Your task to perform on an android device: Clear the shopping cart on walmart. Add "asus rog" to the cart on walmart, then select checkout. Image 0: 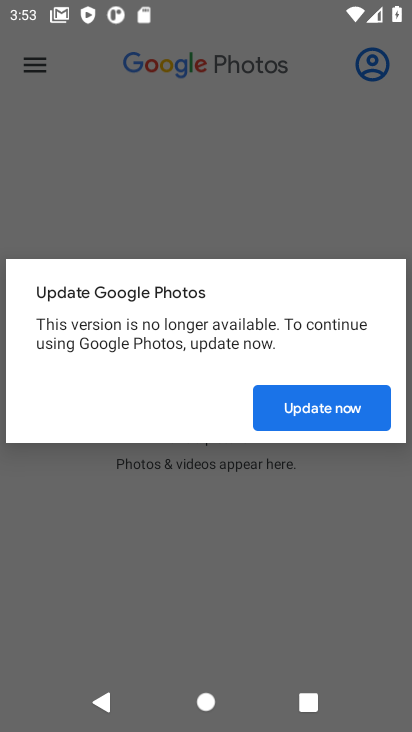
Step 0: press home button
Your task to perform on an android device: Clear the shopping cart on walmart. Add "asus rog" to the cart on walmart, then select checkout. Image 1: 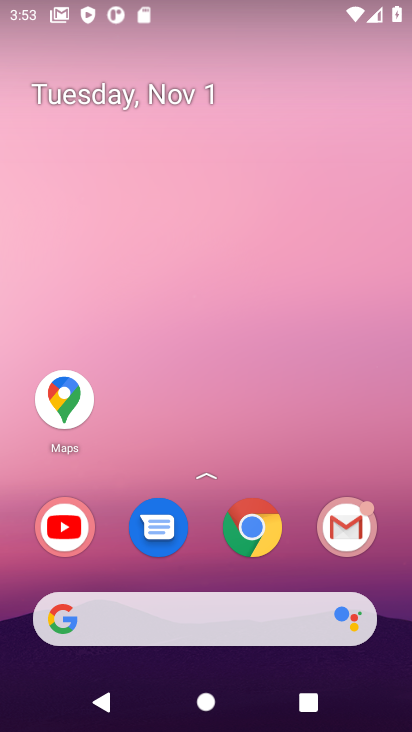
Step 1: click (145, 626)
Your task to perform on an android device: Clear the shopping cart on walmart. Add "asus rog" to the cart on walmart, then select checkout. Image 2: 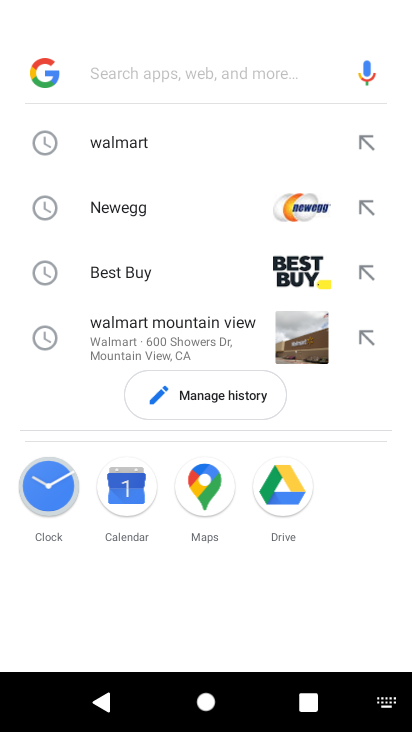
Step 2: click (131, 139)
Your task to perform on an android device: Clear the shopping cart on walmart. Add "asus rog" to the cart on walmart, then select checkout. Image 3: 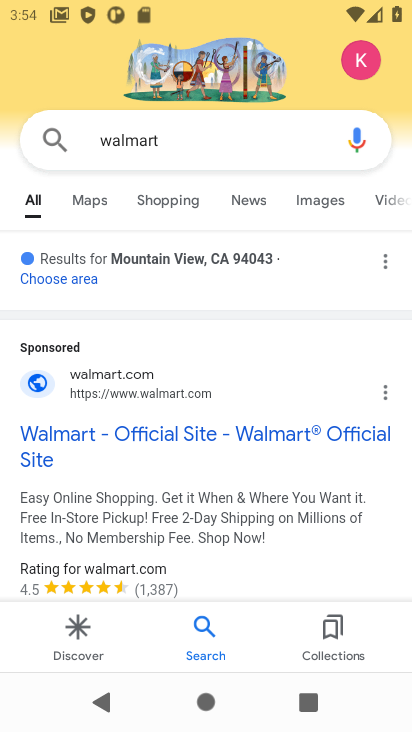
Step 3: click (95, 388)
Your task to perform on an android device: Clear the shopping cart on walmart. Add "asus rog" to the cart on walmart, then select checkout. Image 4: 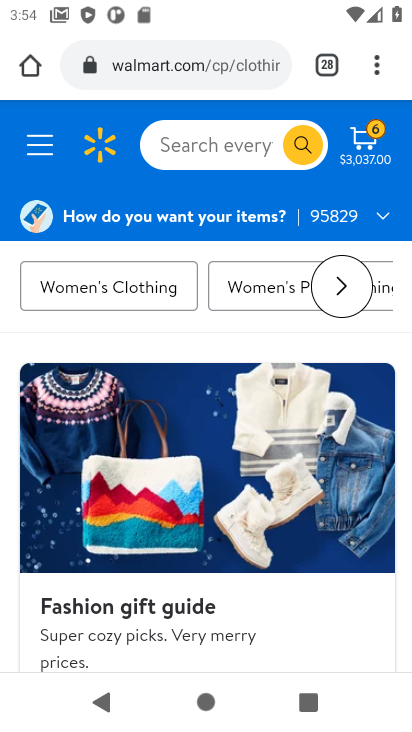
Step 4: click (366, 136)
Your task to perform on an android device: Clear the shopping cart on walmart. Add "asus rog" to the cart on walmart, then select checkout. Image 5: 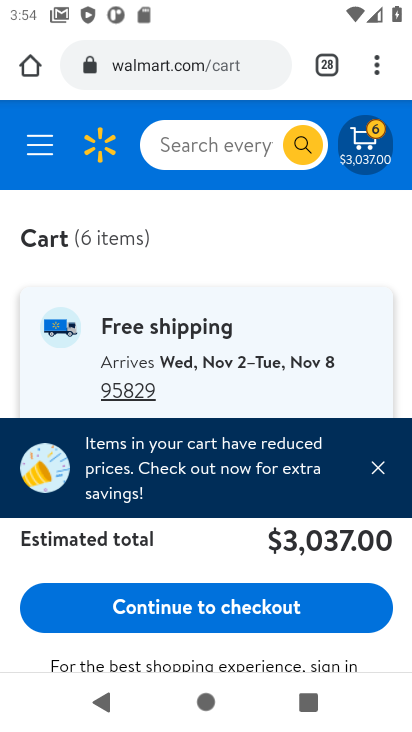
Step 5: click (384, 472)
Your task to perform on an android device: Clear the shopping cart on walmart. Add "asus rog" to the cart on walmart, then select checkout. Image 6: 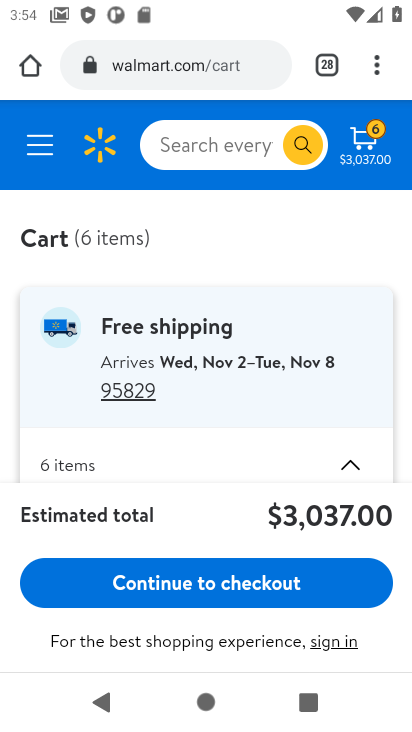
Step 6: drag from (325, 450) to (404, 214)
Your task to perform on an android device: Clear the shopping cart on walmart. Add "asus rog" to the cart on walmart, then select checkout. Image 7: 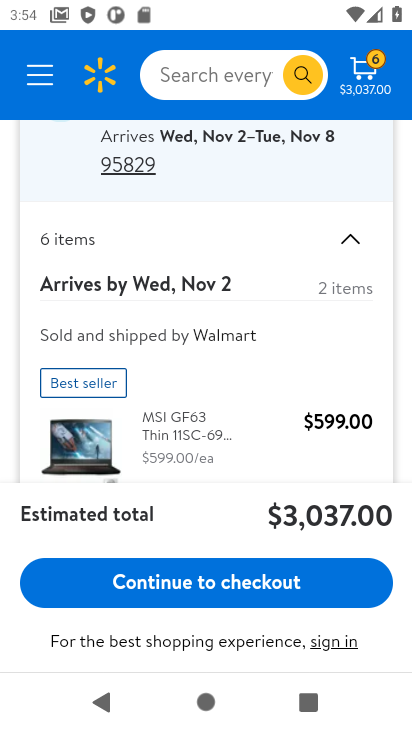
Step 7: drag from (272, 380) to (284, 277)
Your task to perform on an android device: Clear the shopping cart on walmart. Add "asus rog" to the cart on walmart, then select checkout. Image 8: 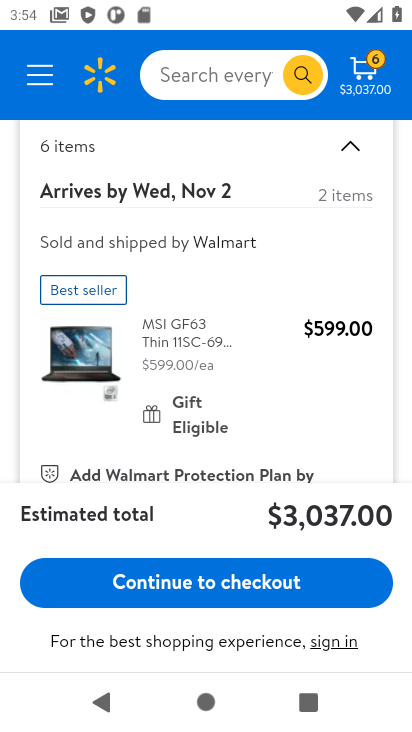
Step 8: drag from (255, 395) to (285, 256)
Your task to perform on an android device: Clear the shopping cart on walmart. Add "asus rog" to the cart on walmart, then select checkout. Image 9: 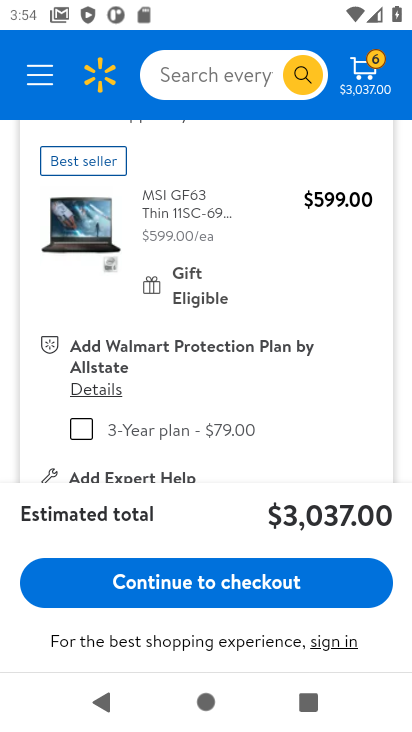
Step 9: drag from (265, 406) to (347, 174)
Your task to perform on an android device: Clear the shopping cart on walmart. Add "asus rog" to the cart on walmart, then select checkout. Image 10: 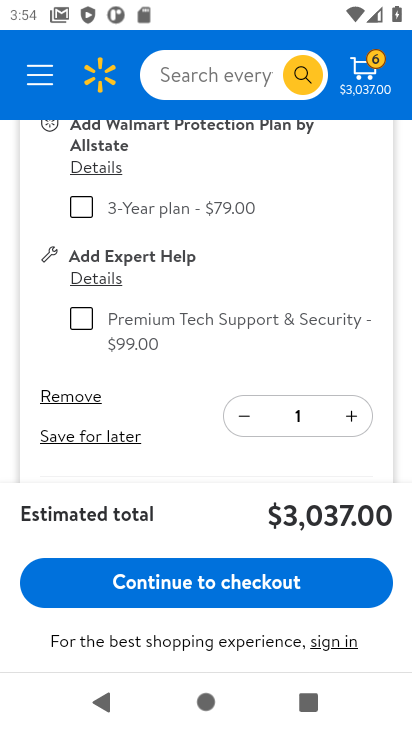
Step 10: click (87, 392)
Your task to perform on an android device: Clear the shopping cart on walmart. Add "asus rog" to the cart on walmart, then select checkout. Image 11: 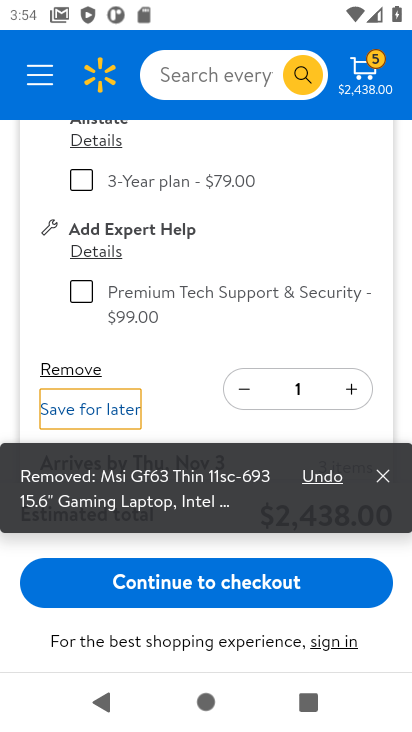
Step 11: click (85, 368)
Your task to perform on an android device: Clear the shopping cart on walmart. Add "asus rog" to the cart on walmart, then select checkout. Image 12: 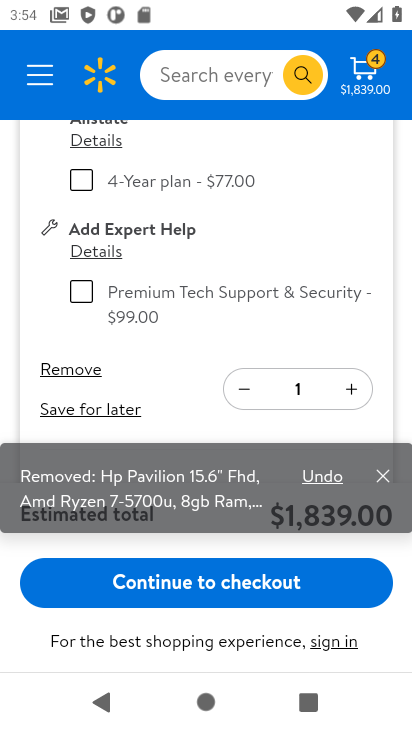
Step 12: click (82, 369)
Your task to perform on an android device: Clear the shopping cart on walmart. Add "asus rog" to the cart on walmart, then select checkout. Image 13: 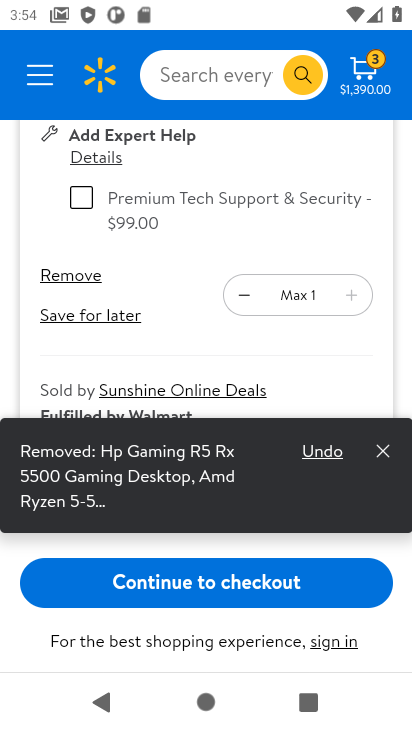
Step 13: click (60, 275)
Your task to perform on an android device: Clear the shopping cart on walmart. Add "asus rog" to the cart on walmart, then select checkout. Image 14: 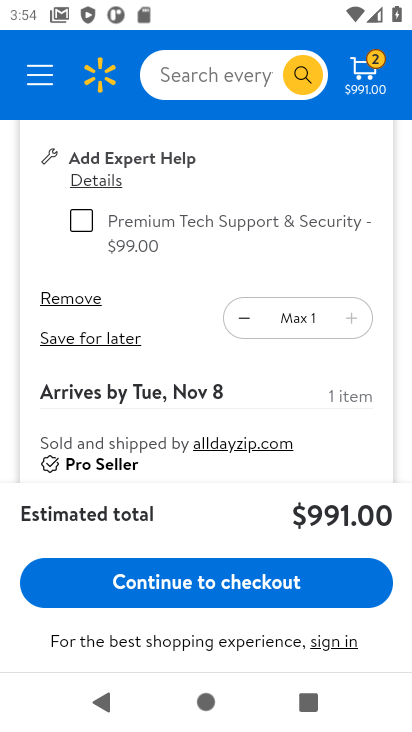
Step 14: click (60, 298)
Your task to perform on an android device: Clear the shopping cart on walmart. Add "asus rog" to the cart on walmart, then select checkout. Image 15: 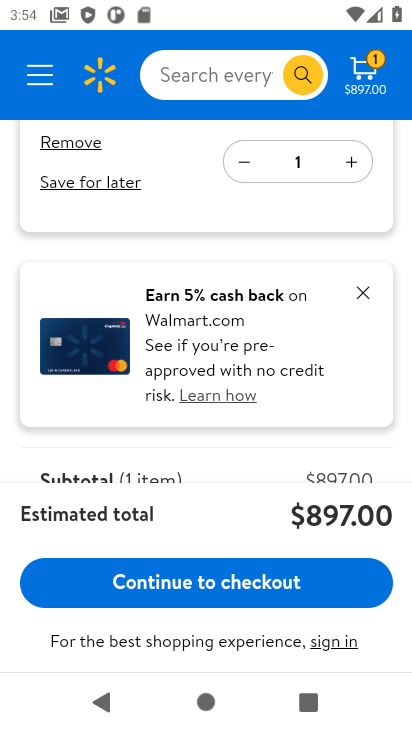
Step 15: click (365, 295)
Your task to perform on an android device: Clear the shopping cart on walmart. Add "asus rog" to the cart on walmart, then select checkout. Image 16: 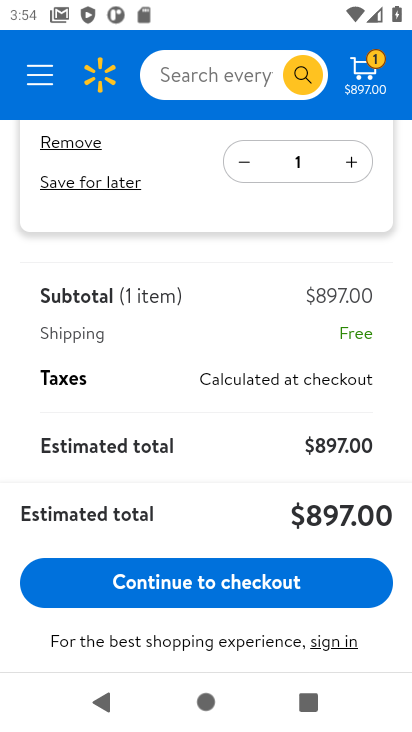
Step 16: click (62, 152)
Your task to perform on an android device: Clear the shopping cart on walmart. Add "asus rog" to the cart on walmart, then select checkout. Image 17: 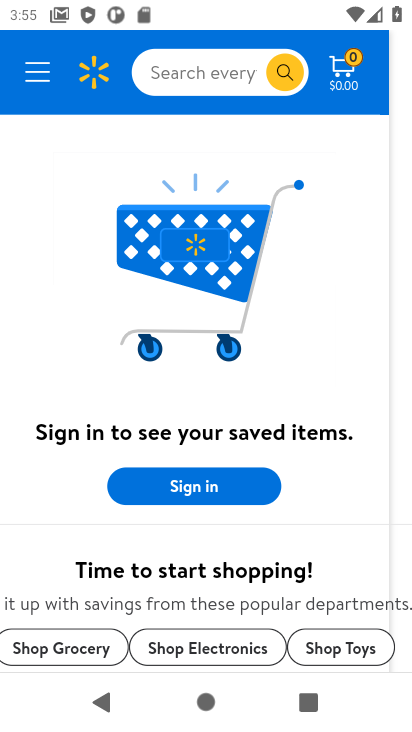
Step 17: task complete